Your task to perform on an android device: star an email in the gmail app Image 0: 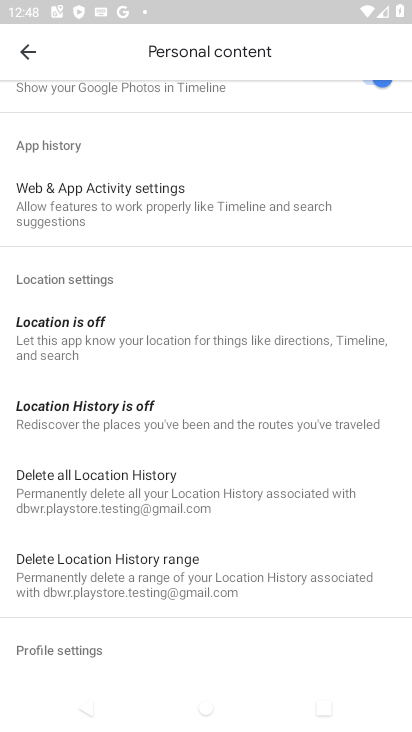
Step 0: press home button
Your task to perform on an android device: star an email in the gmail app Image 1: 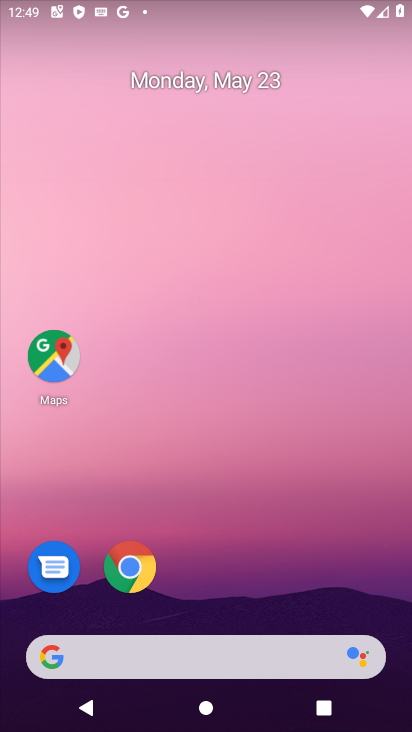
Step 1: drag from (256, 599) to (172, 71)
Your task to perform on an android device: star an email in the gmail app Image 2: 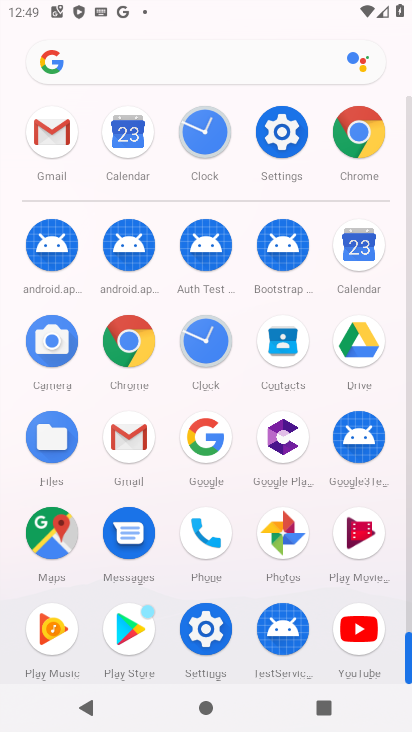
Step 2: click (36, 142)
Your task to perform on an android device: star an email in the gmail app Image 3: 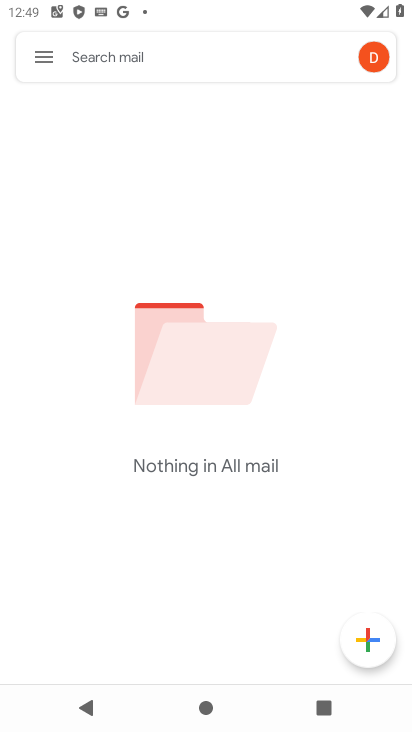
Step 3: task complete